Your task to perform on an android device: turn on showing notifications on the lock screen Image 0: 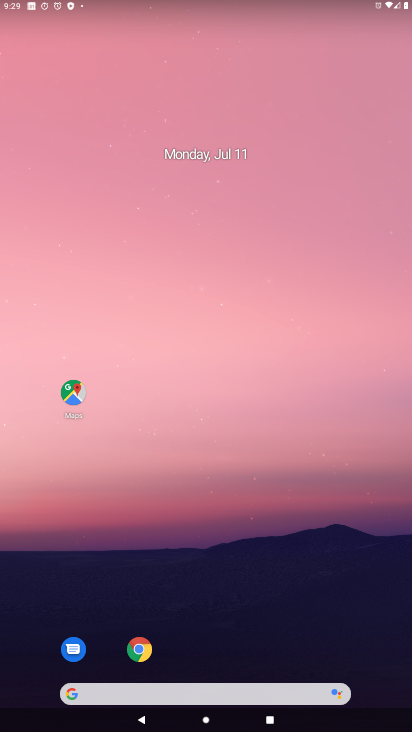
Step 0: drag from (203, 695) to (269, 262)
Your task to perform on an android device: turn on showing notifications on the lock screen Image 1: 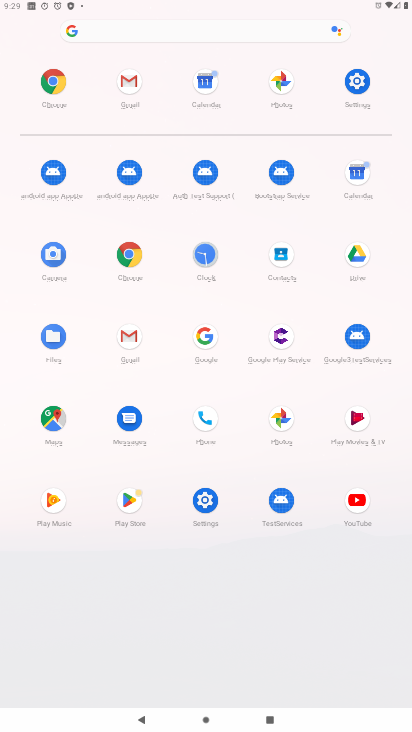
Step 1: click (358, 80)
Your task to perform on an android device: turn on showing notifications on the lock screen Image 2: 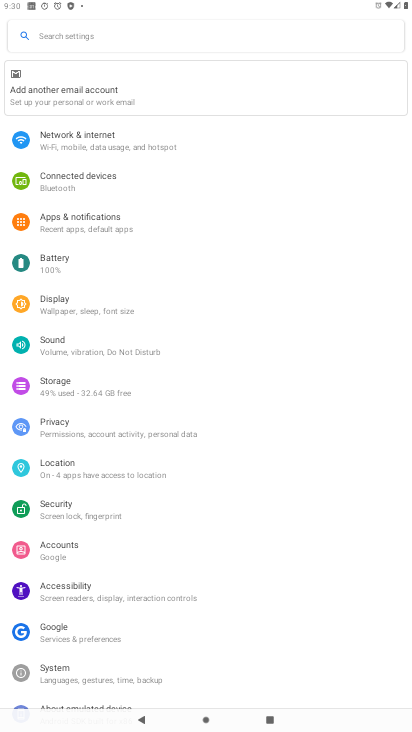
Step 2: click (106, 221)
Your task to perform on an android device: turn on showing notifications on the lock screen Image 3: 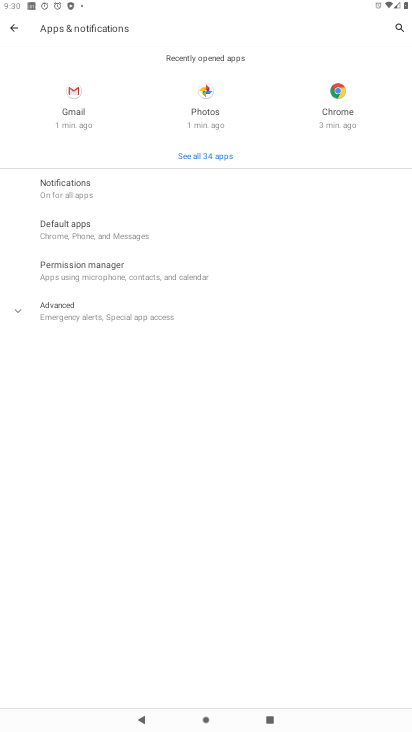
Step 3: click (75, 188)
Your task to perform on an android device: turn on showing notifications on the lock screen Image 4: 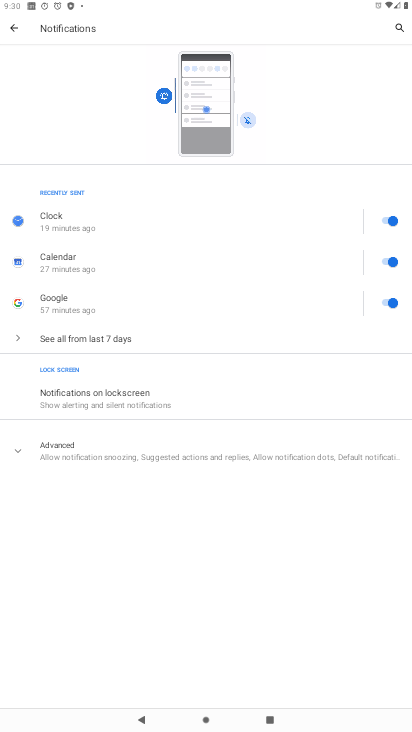
Step 4: click (105, 404)
Your task to perform on an android device: turn on showing notifications on the lock screen Image 5: 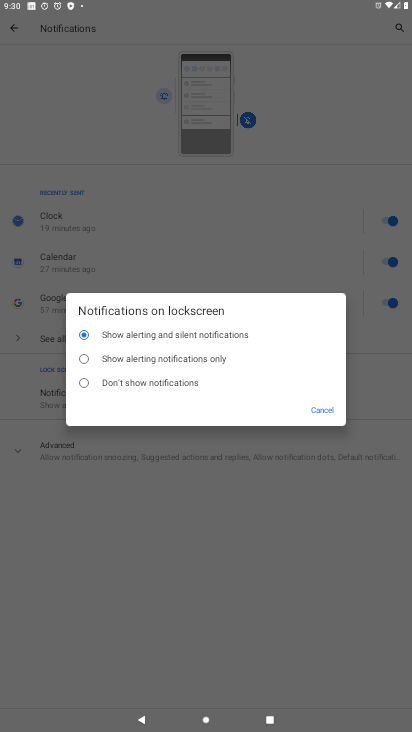
Step 5: click (86, 336)
Your task to perform on an android device: turn on showing notifications on the lock screen Image 6: 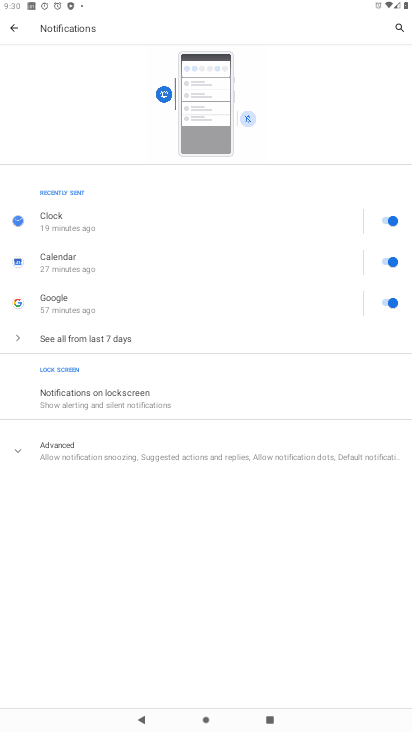
Step 6: task complete